Your task to perform on an android device: change the clock style Image 0: 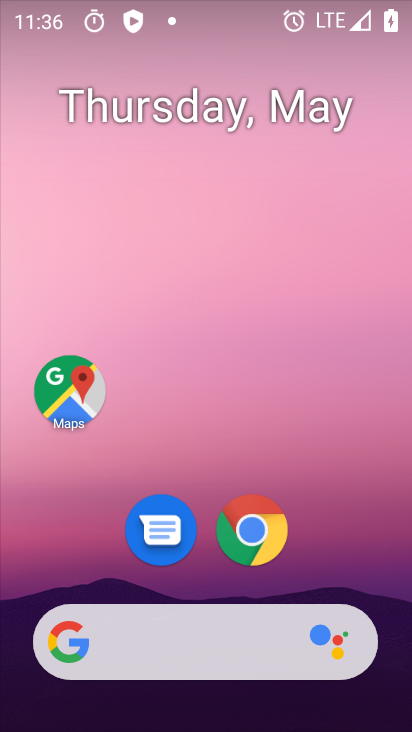
Step 0: drag from (300, 590) to (294, 62)
Your task to perform on an android device: change the clock style Image 1: 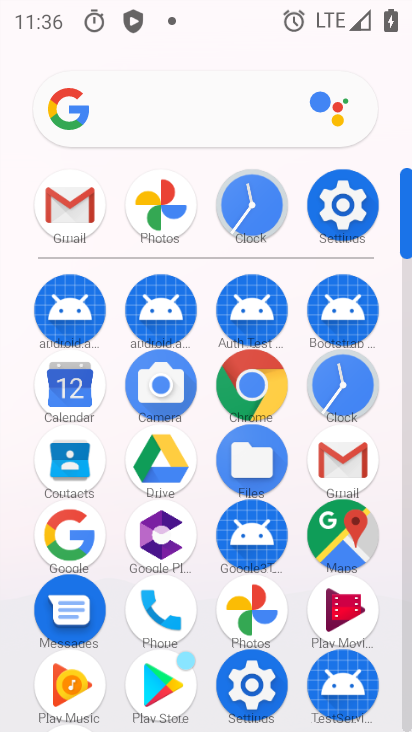
Step 1: click (357, 382)
Your task to perform on an android device: change the clock style Image 2: 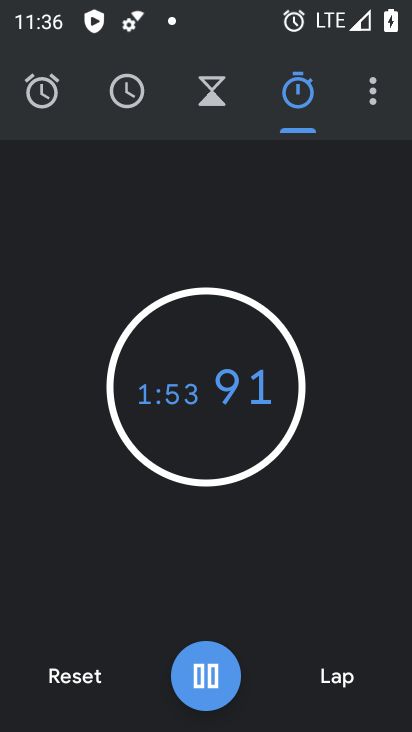
Step 2: click (375, 88)
Your task to perform on an android device: change the clock style Image 3: 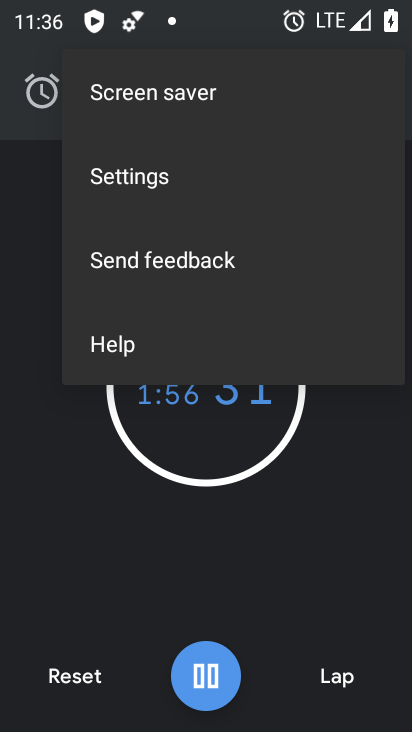
Step 3: click (182, 178)
Your task to perform on an android device: change the clock style Image 4: 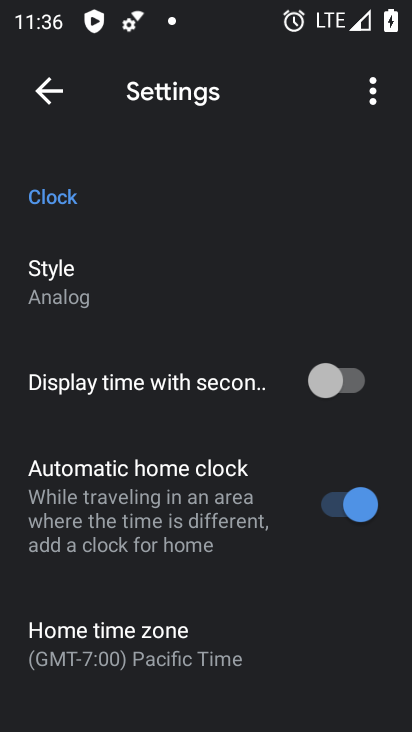
Step 4: click (61, 279)
Your task to perform on an android device: change the clock style Image 5: 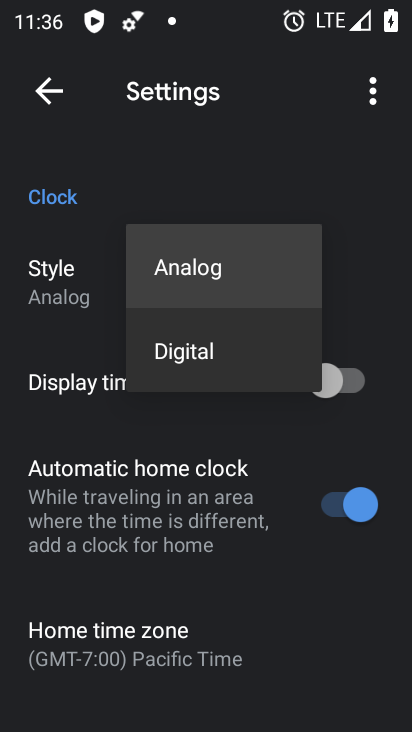
Step 5: click (232, 351)
Your task to perform on an android device: change the clock style Image 6: 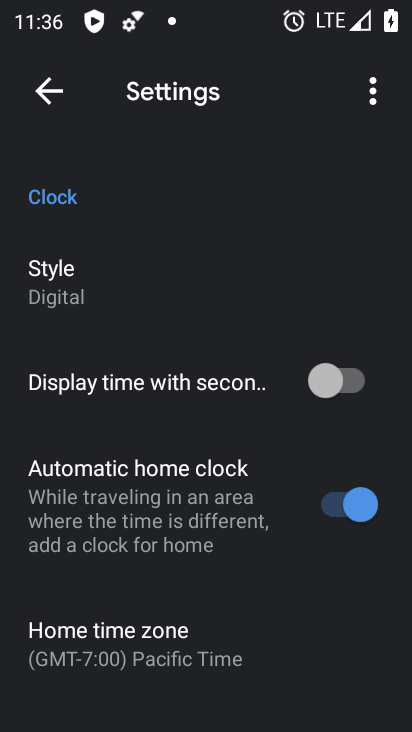
Step 6: task complete